Your task to perform on an android device: Open the calendar app, open the side menu, and click the "Day" option Image 0: 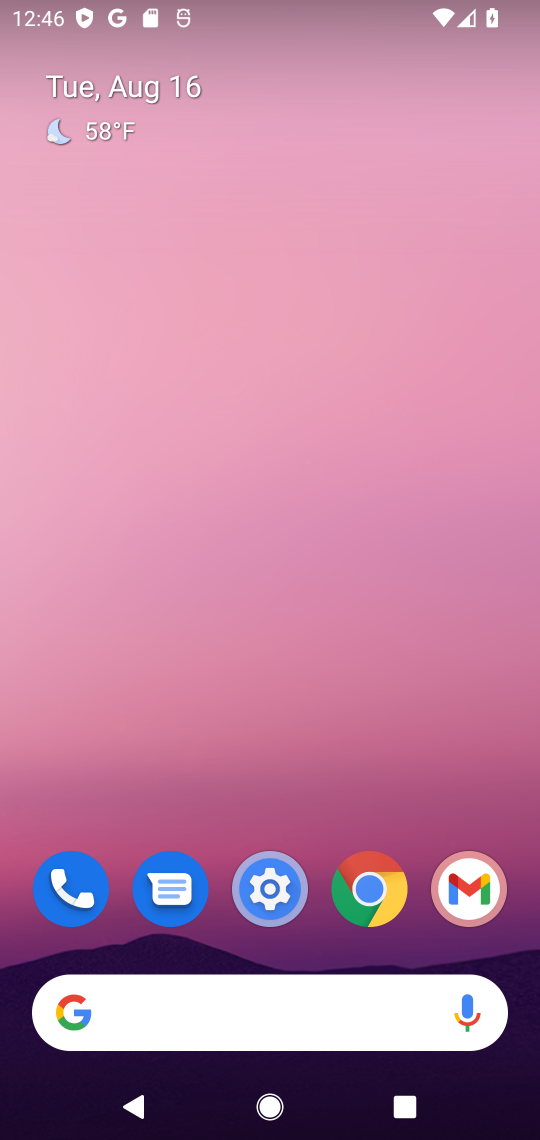
Step 0: drag from (358, 844) to (376, 33)
Your task to perform on an android device: Open the calendar app, open the side menu, and click the "Day" option Image 1: 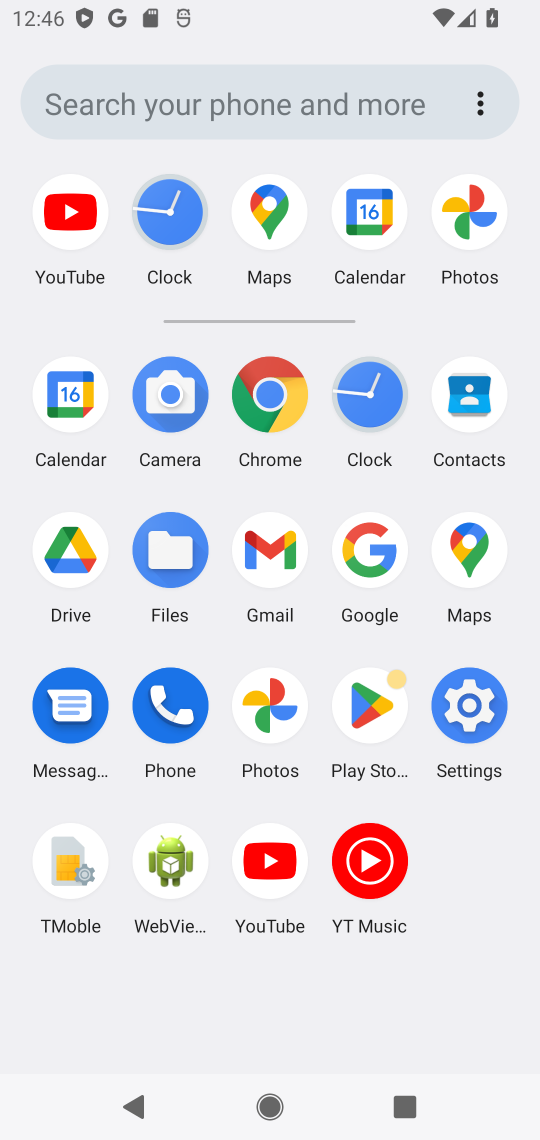
Step 1: click (57, 389)
Your task to perform on an android device: Open the calendar app, open the side menu, and click the "Day" option Image 2: 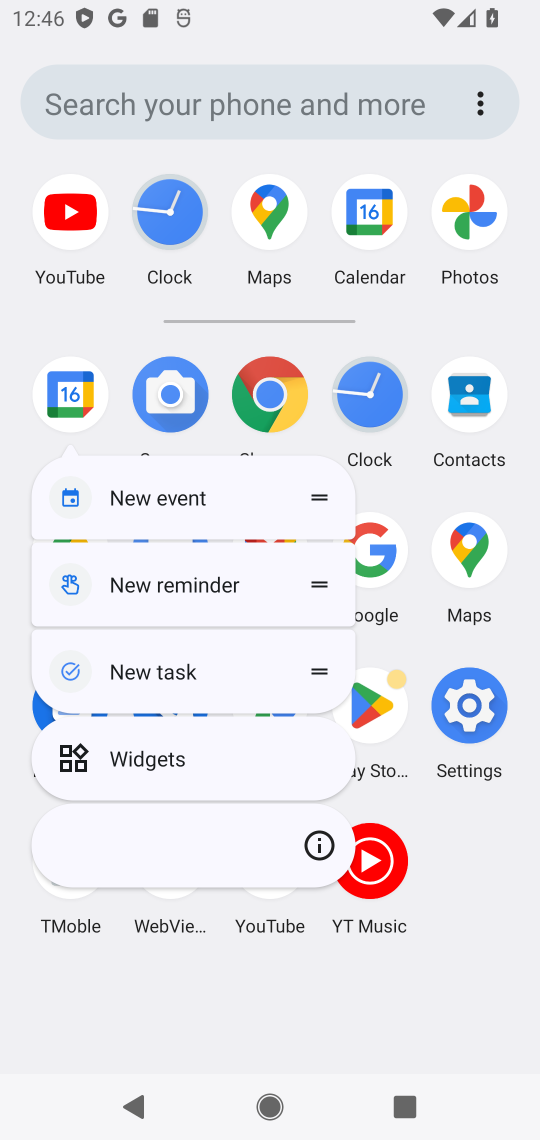
Step 2: click (45, 406)
Your task to perform on an android device: Open the calendar app, open the side menu, and click the "Day" option Image 3: 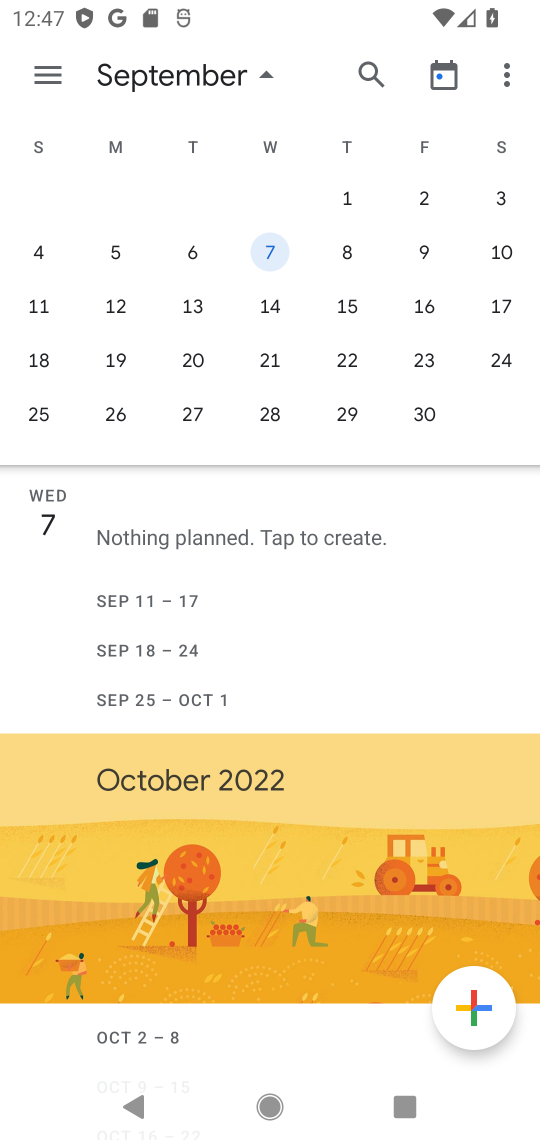
Step 3: click (46, 63)
Your task to perform on an android device: Open the calendar app, open the side menu, and click the "Day" option Image 4: 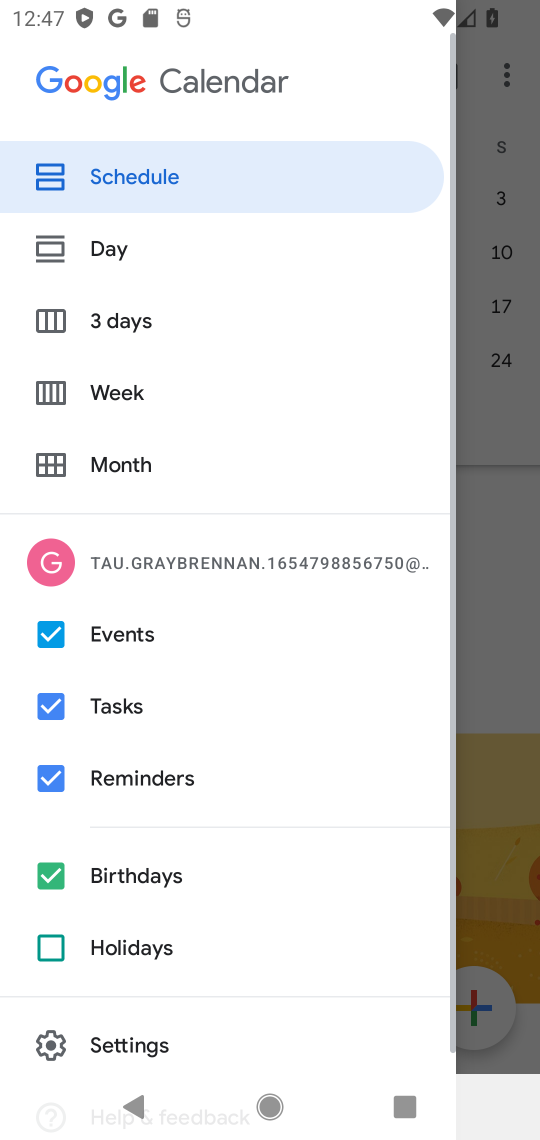
Step 4: click (73, 259)
Your task to perform on an android device: Open the calendar app, open the side menu, and click the "Day" option Image 5: 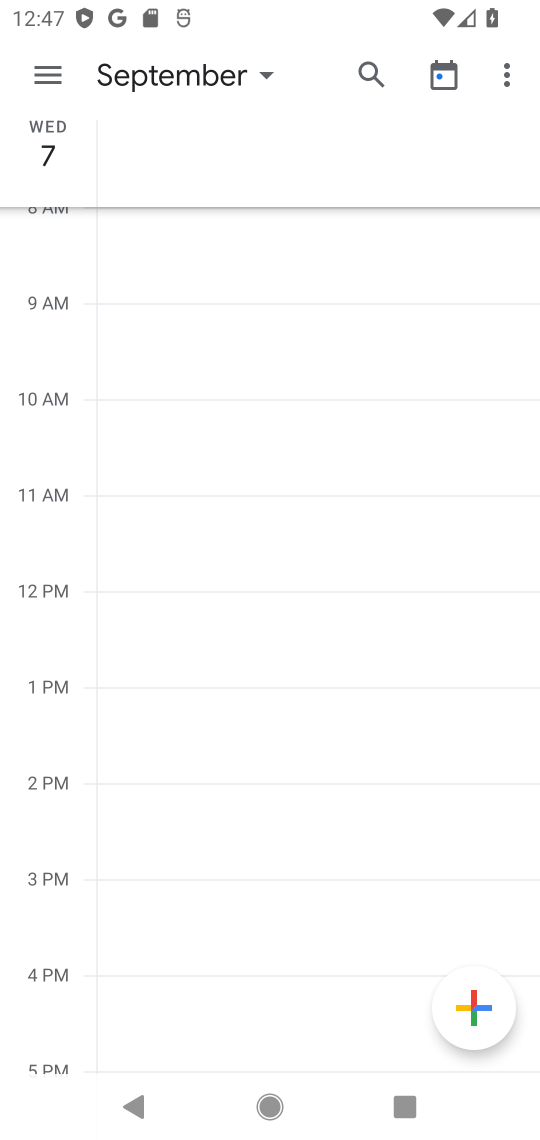
Step 5: task complete